Your task to perform on an android device: Open Google Maps and go to "Timeline" Image 0: 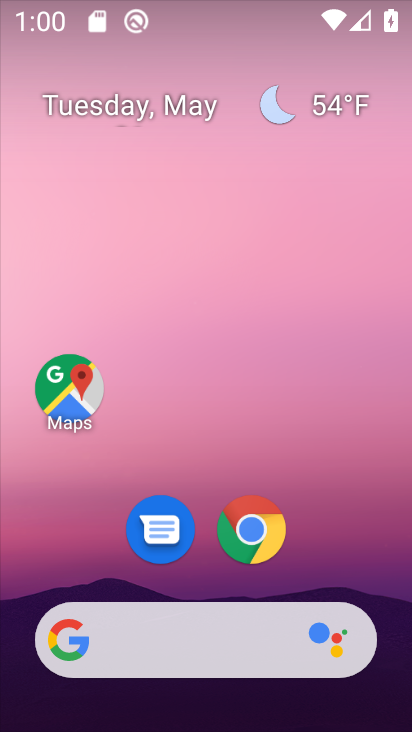
Step 0: click (52, 381)
Your task to perform on an android device: Open Google Maps and go to "Timeline" Image 1: 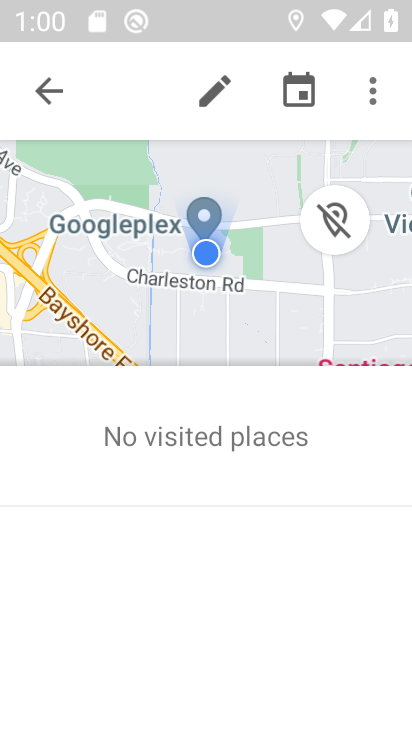
Step 1: click (55, 86)
Your task to perform on an android device: Open Google Maps and go to "Timeline" Image 2: 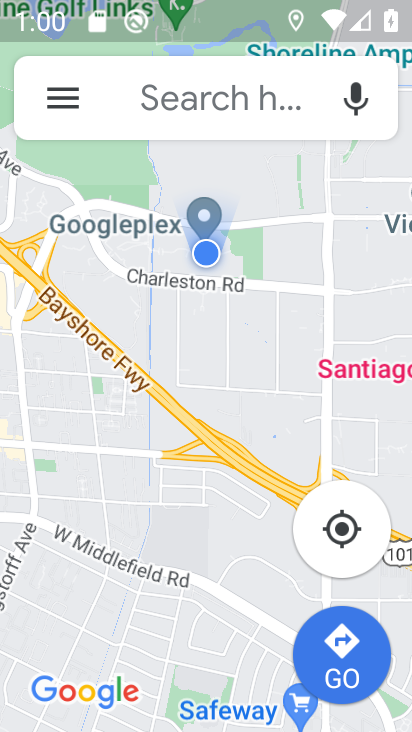
Step 2: click (63, 86)
Your task to perform on an android device: Open Google Maps and go to "Timeline" Image 3: 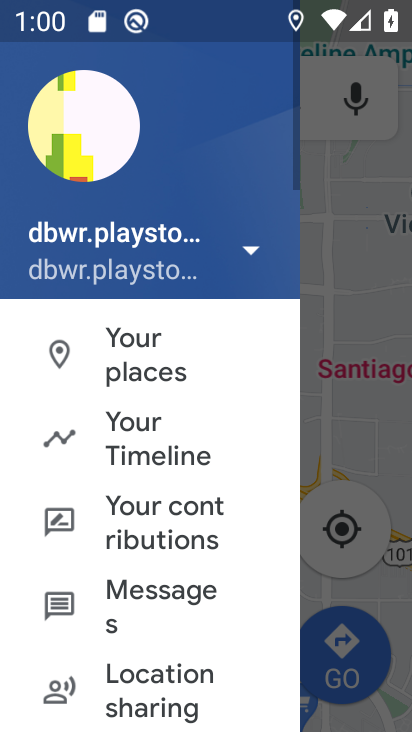
Step 3: click (159, 439)
Your task to perform on an android device: Open Google Maps and go to "Timeline" Image 4: 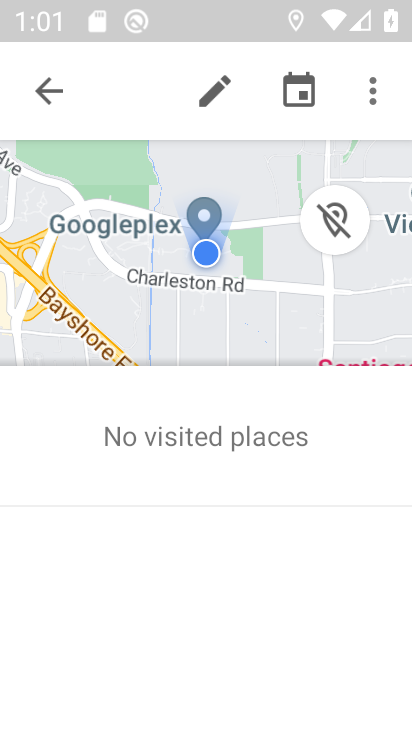
Step 4: task complete